Your task to perform on an android device: Search for the best selling vase on Crate & Barrel Image 0: 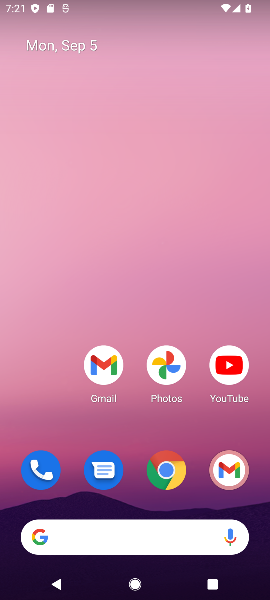
Step 0: click (117, 544)
Your task to perform on an android device: Search for the best selling vase on Crate & Barrel Image 1: 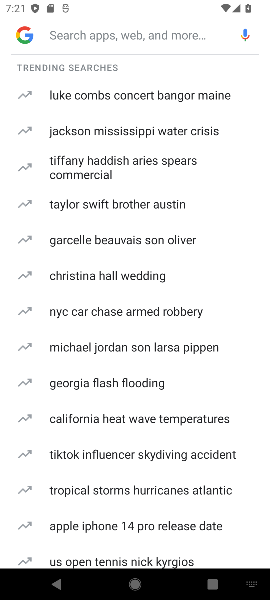
Step 1: type "crate & barrel"
Your task to perform on an android device: Search for the best selling vase on Crate & Barrel Image 2: 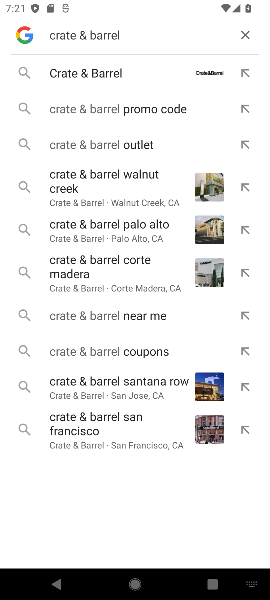
Step 2: click (126, 75)
Your task to perform on an android device: Search for the best selling vase on Crate & Barrel Image 3: 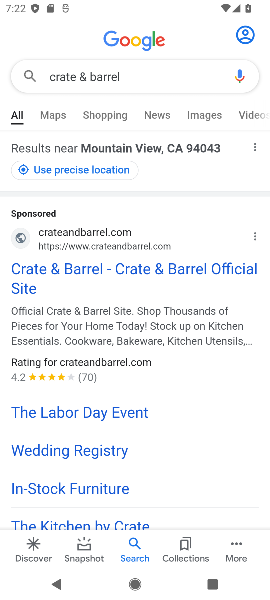
Step 3: click (58, 272)
Your task to perform on an android device: Search for the best selling vase on Crate & Barrel Image 4: 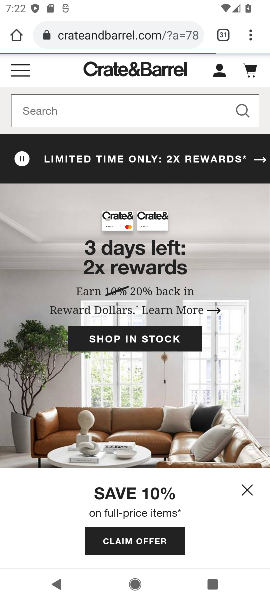
Step 4: click (52, 110)
Your task to perform on an android device: Search for the best selling vase on Crate & Barrel Image 5: 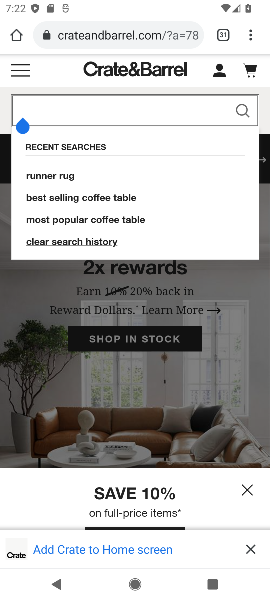
Step 5: type "best selling vase"
Your task to perform on an android device: Search for the best selling vase on Crate & Barrel Image 6: 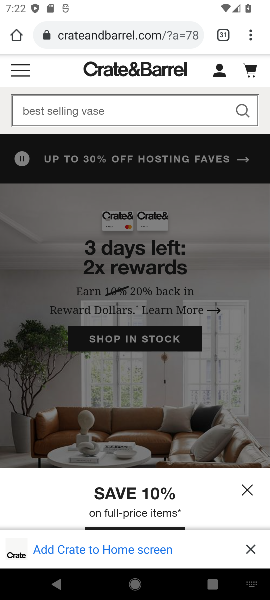
Step 6: click (244, 108)
Your task to perform on an android device: Search for the best selling vase on Crate & Barrel Image 7: 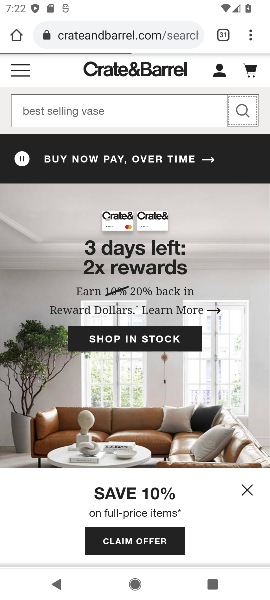
Step 7: click (247, 488)
Your task to perform on an android device: Search for the best selling vase on Crate & Barrel Image 8: 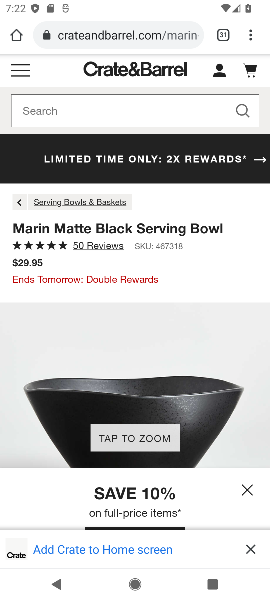
Step 8: task complete